Your task to perform on an android device: Set an alarm for 6am Image 0: 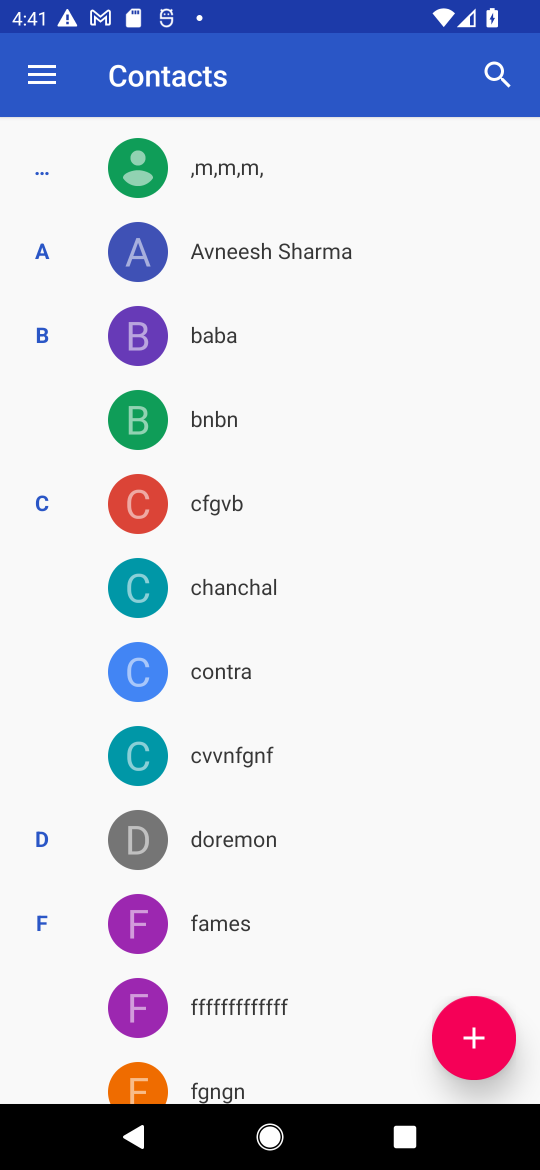
Step 0: press home button
Your task to perform on an android device: Set an alarm for 6am Image 1: 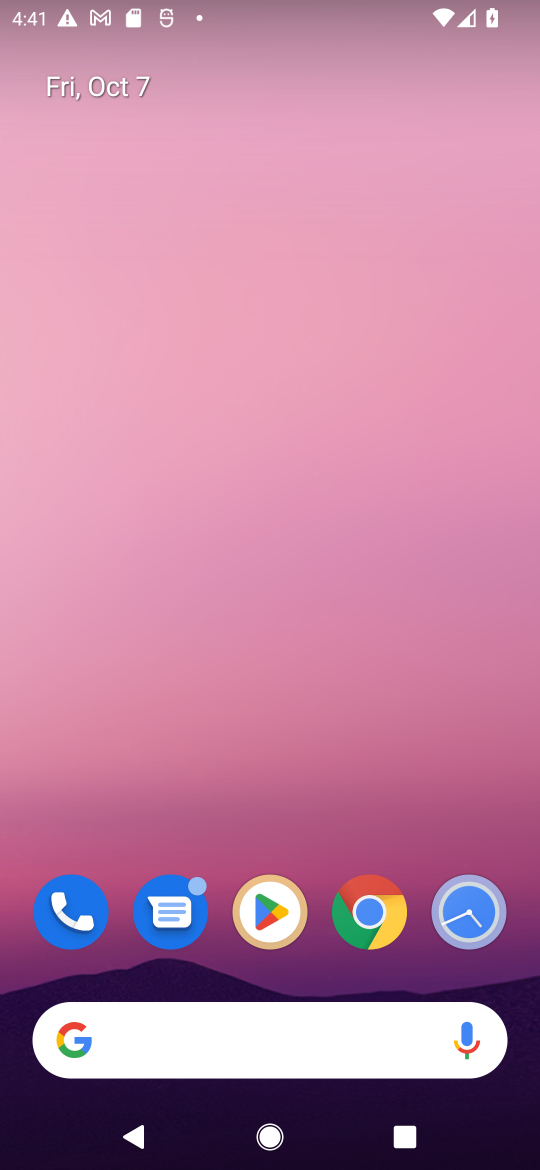
Step 1: drag from (237, 893) to (331, 385)
Your task to perform on an android device: Set an alarm for 6am Image 2: 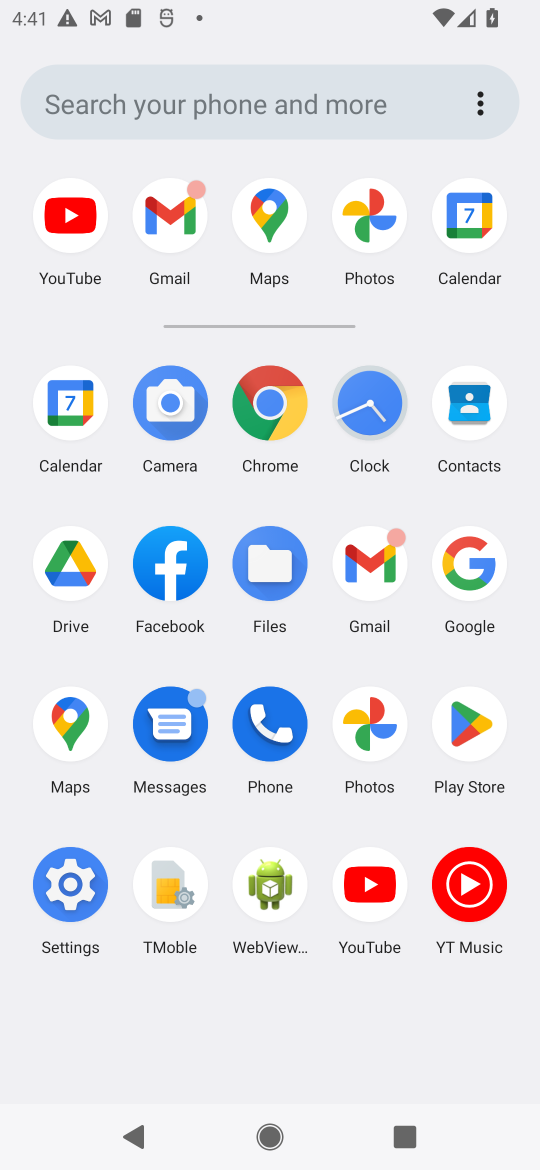
Step 2: click (359, 392)
Your task to perform on an android device: Set an alarm for 6am Image 3: 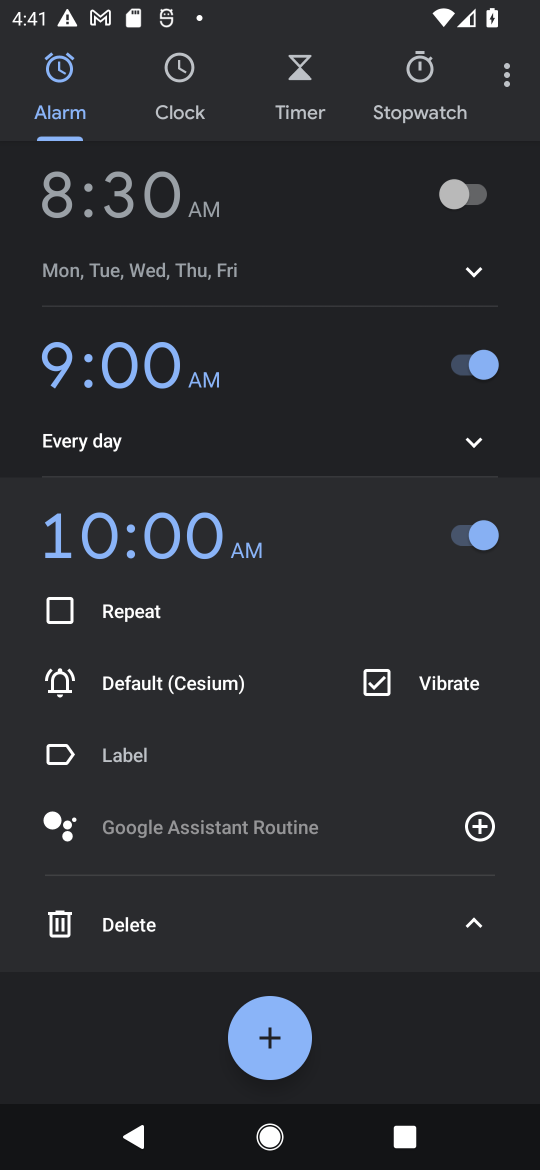
Step 3: click (468, 941)
Your task to perform on an android device: Set an alarm for 6am Image 4: 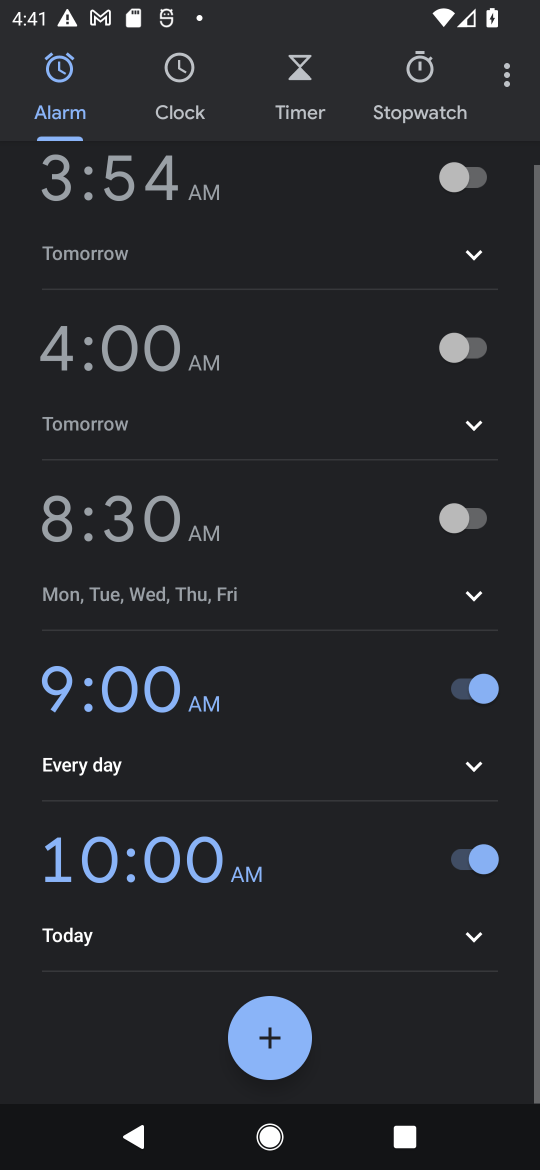
Step 4: click (271, 1034)
Your task to perform on an android device: Set an alarm for 6am Image 5: 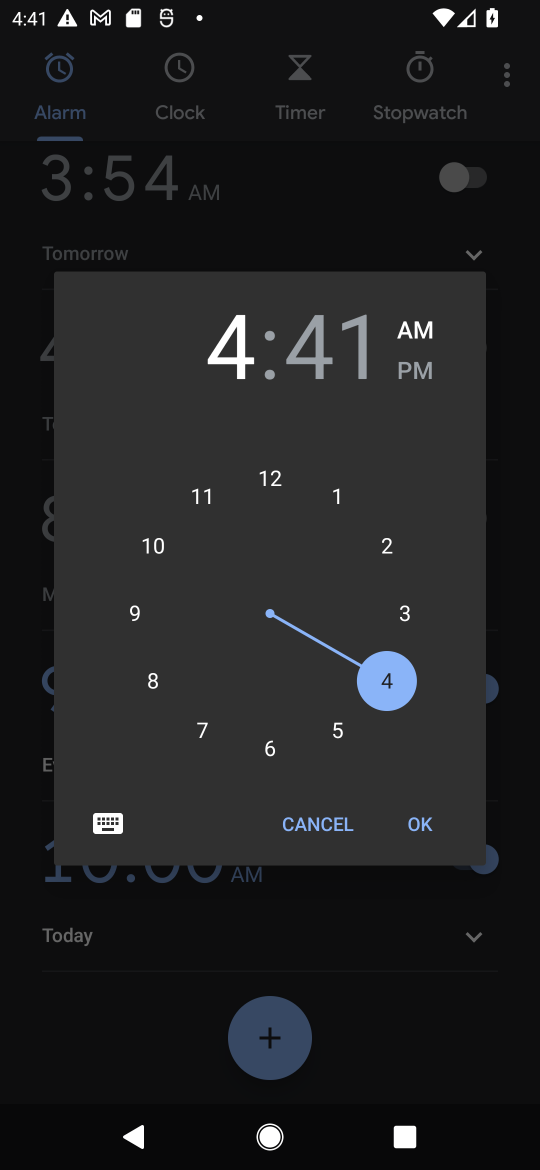
Step 5: click (274, 738)
Your task to perform on an android device: Set an alarm for 6am Image 6: 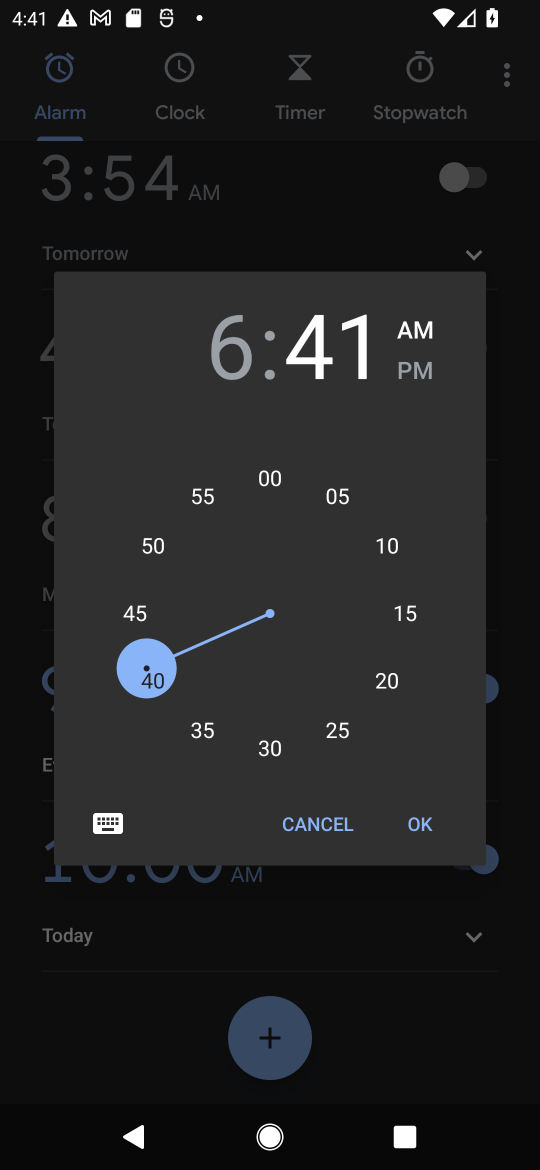
Step 6: click (282, 481)
Your task to perform on an android device: Set an alarm for 6am Image 7: 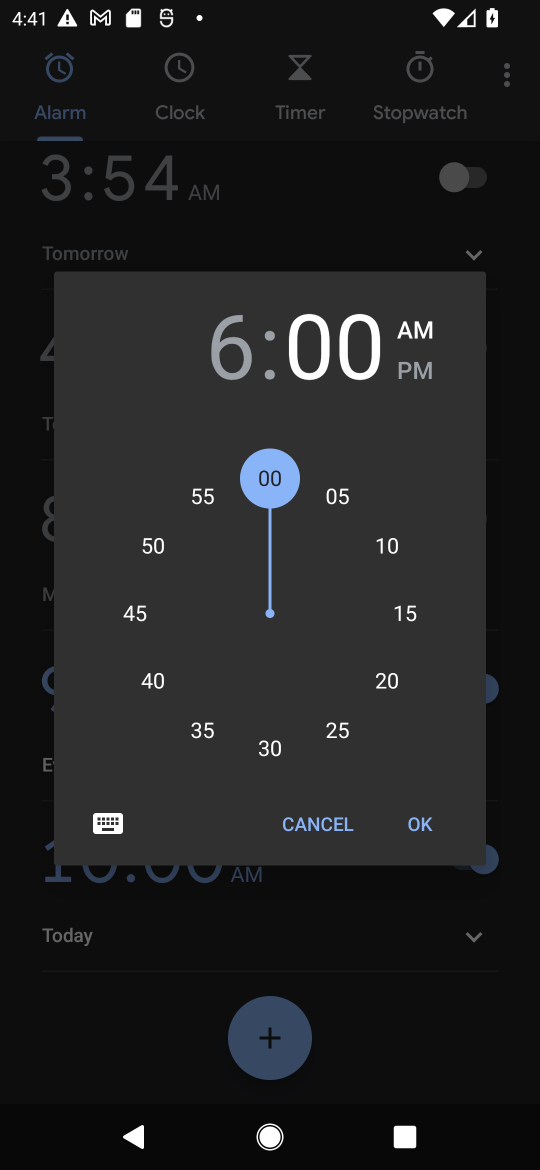
Step 7: click (411, 836)
Your task to perform on an android device: Set an alarm for 6am Image 8: 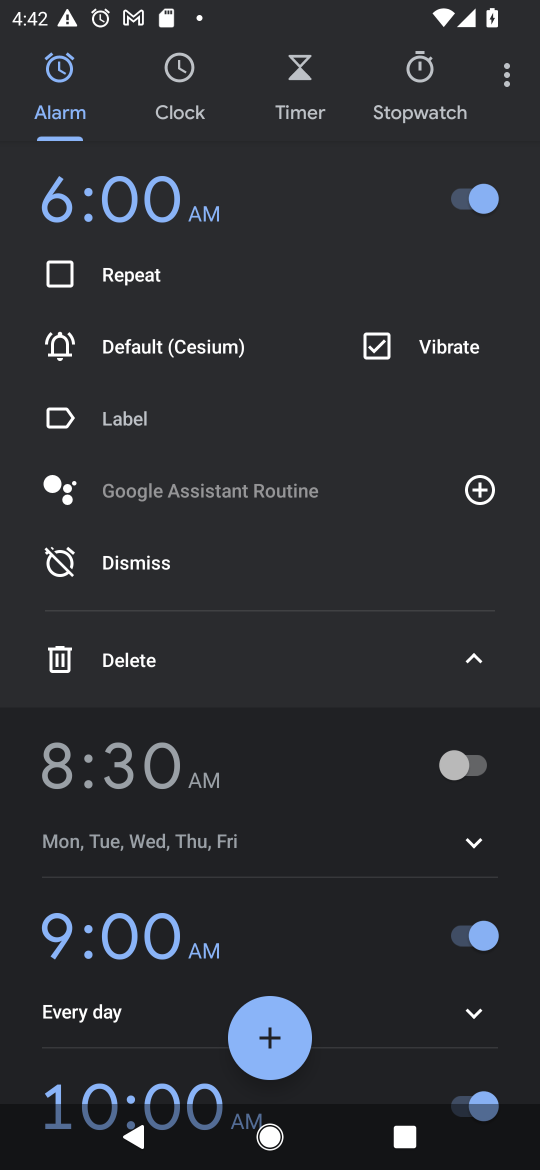
Step 8: click (477, 650)
Your task to perform on an android device: Set an alarm for 6am Image 9: 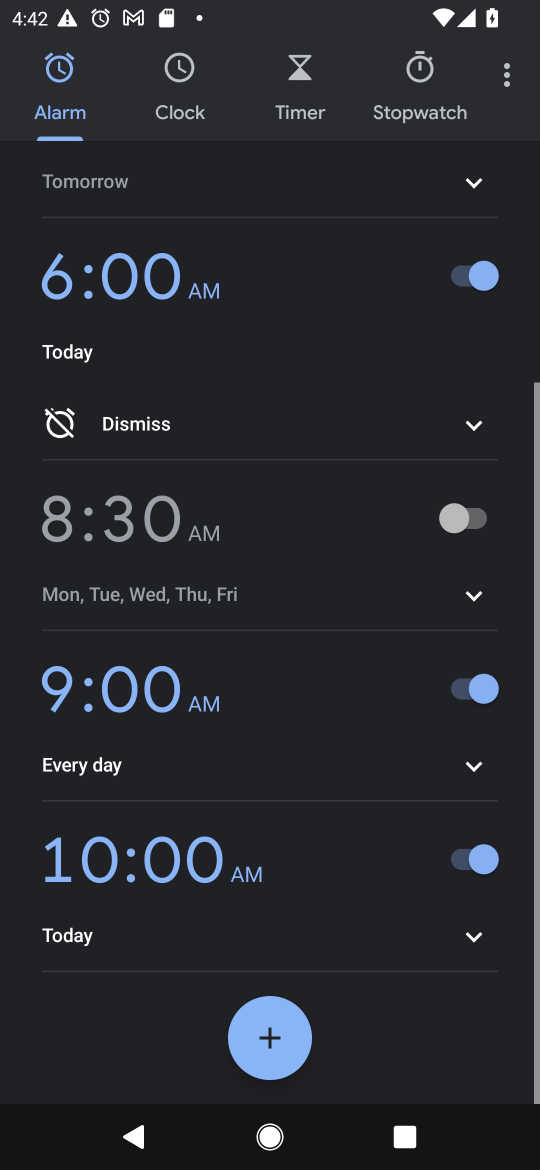
Step 9: task complete